Your task to perform on an android device: Open settings Image 0: 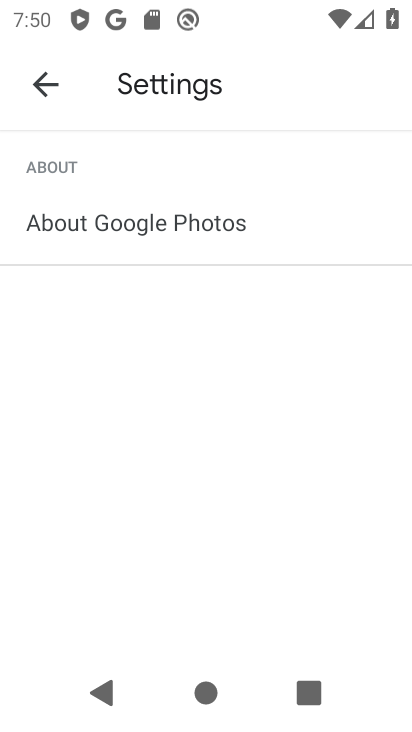
Step 0: press home button
Your task to perform on an android device: Open settings Image 1: 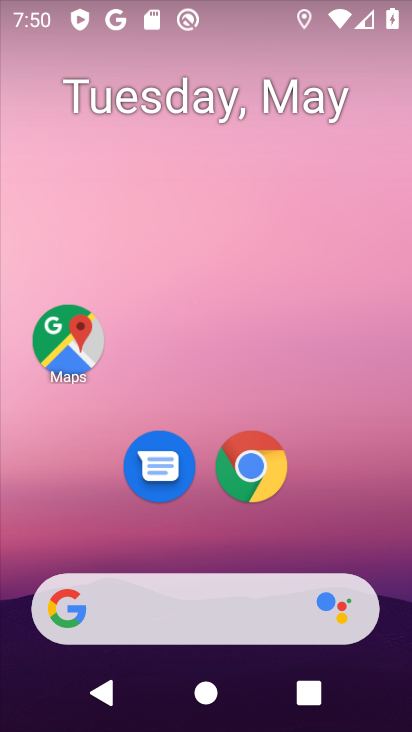
Step 1: drag from (230, 572) to (212, 139)
Your task to perform on an android device: Open settings Image 2: 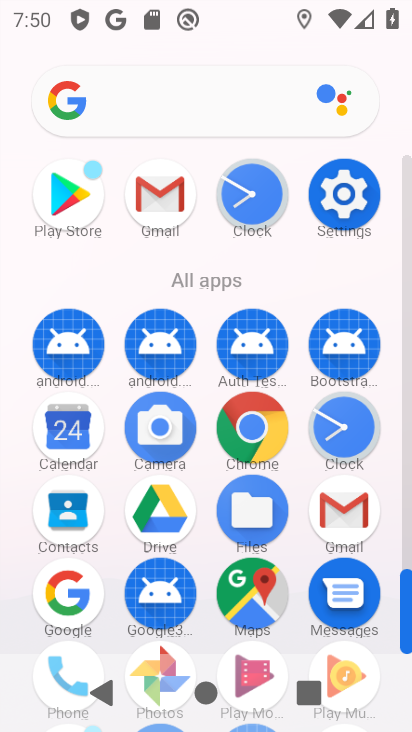
Step 2: click (352, 204)
Your task to perform on an android device: Open settings Image 3: 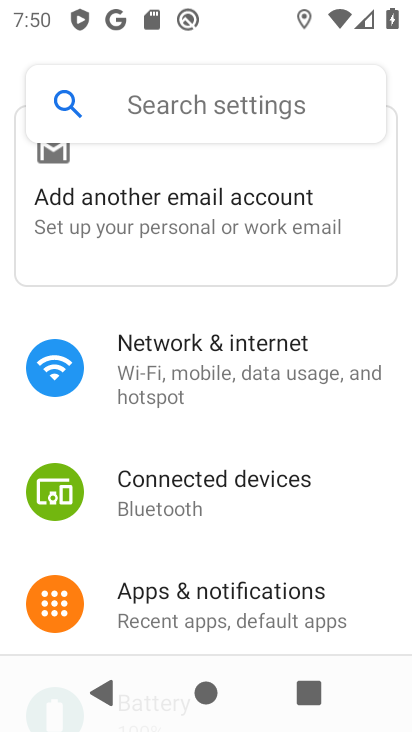
Step 3: task complete